Your task to perform on an android device: open wifi settings Image 0: 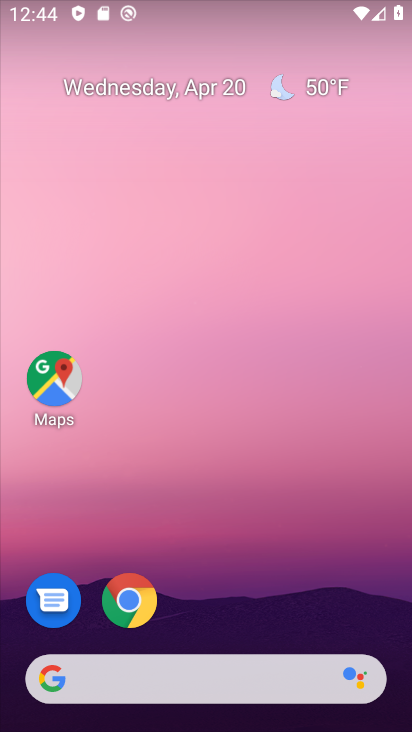
Step 0: drag from (308, 403) to (285, 212)
Your task to perform on an android device: open wifi settings Image 1: 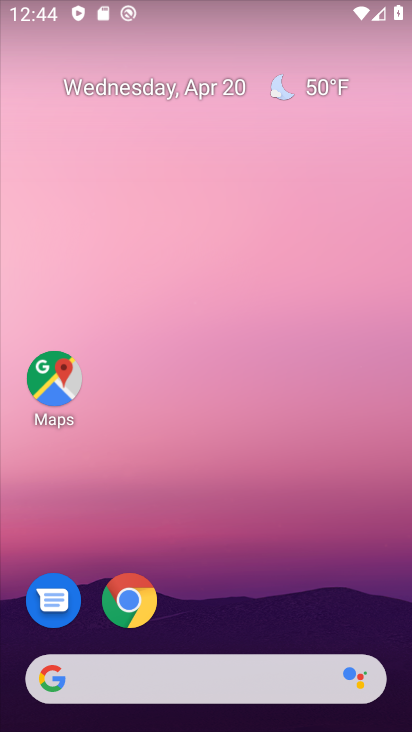
Step 1: drag from (260, 633) to (287, 0)
Your task to perform on an android device: open wifi settings Image 2: 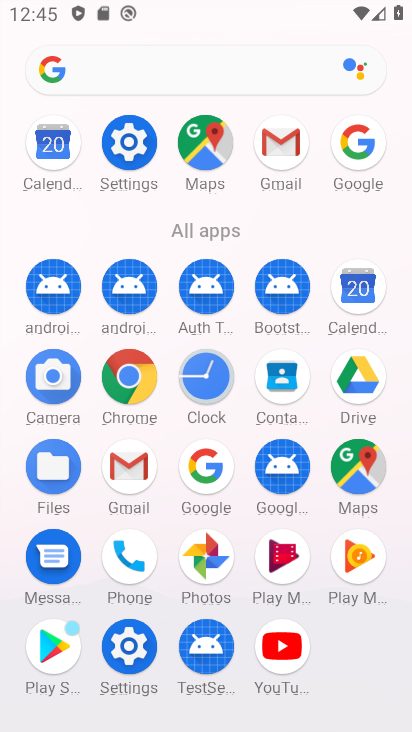
Step 2: click (138, 143)
Your task to perform on an android device: open wifi settings Image 3: 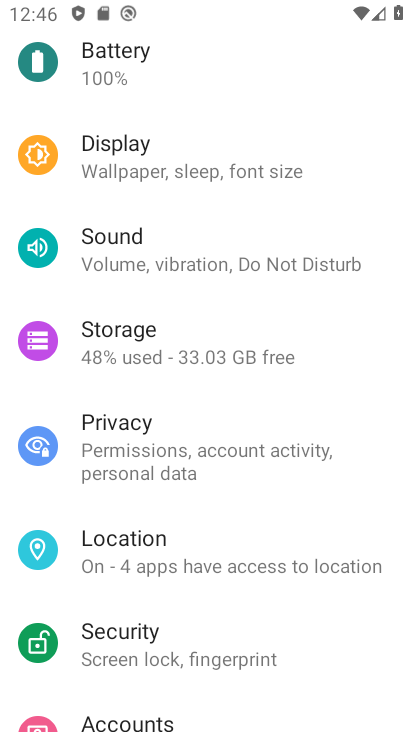
Step 3: drag from (251, 183) to (170, 661)
Your task to perform on an android device: open wifi settings Image 4: 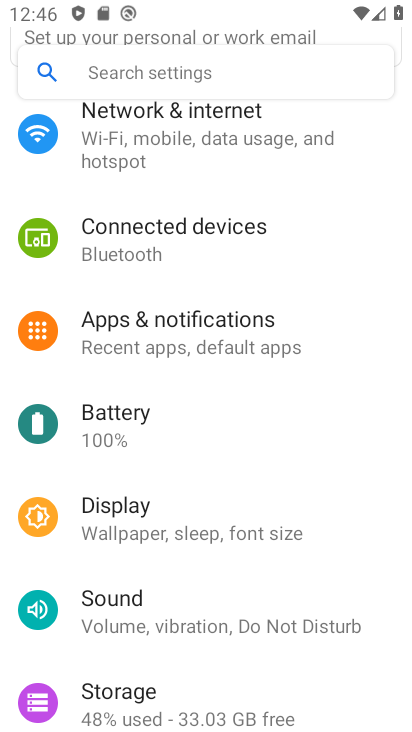
Step 4: click (249, 142)
Your task to perform on an android device: open wifi settings Image 5: 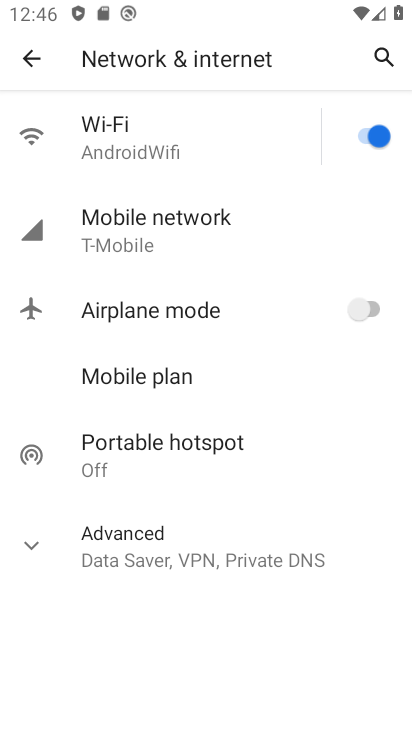
Step 5: click (249, 142)
Your task to perform on an android device: open wifi settings Image 6: 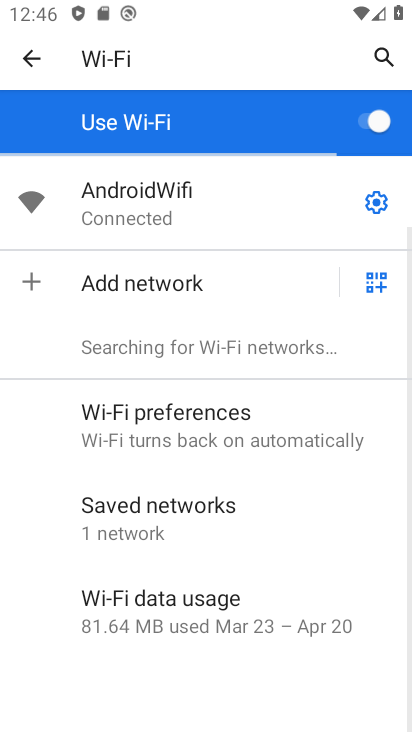
Step 6: click (370, 201)
Your task to perform on an android device: open wifi settings Image 7: 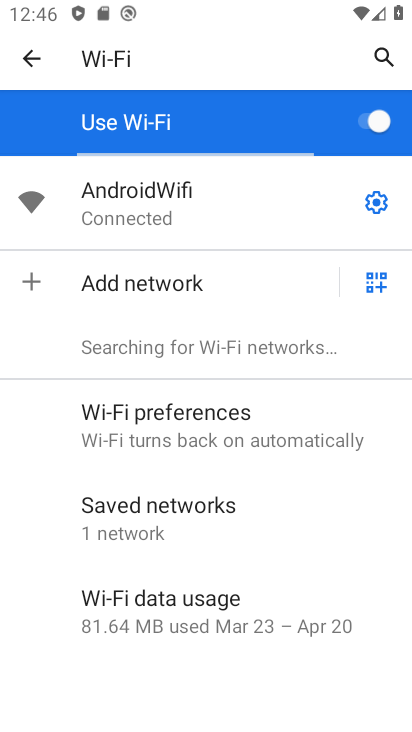
Step 7: click (379, 202)
Your task to perform on an android device: open wifi settings Image 8: 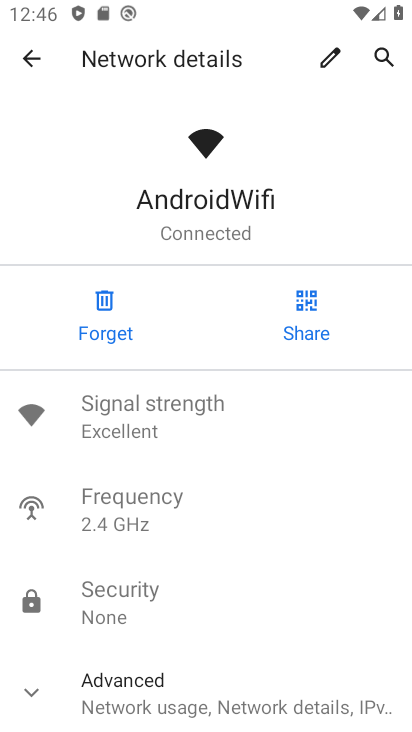
Step 8: task complete